Your task to perform on an android device: change your default location settings in chrome Image 0: 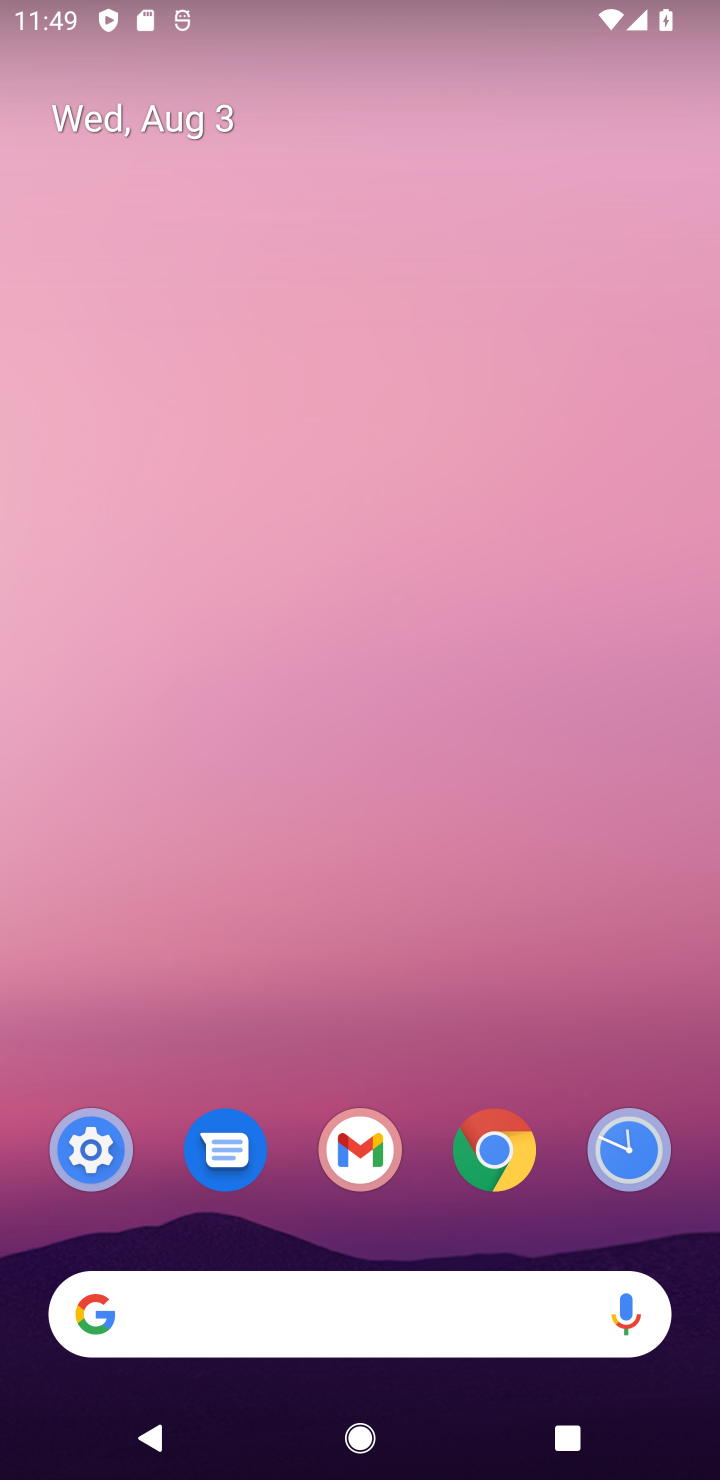
Step 0: drag from (411, 1053) to (411, 452)
Your task to perform on an android device: change your default location settings in chrome Image 1: 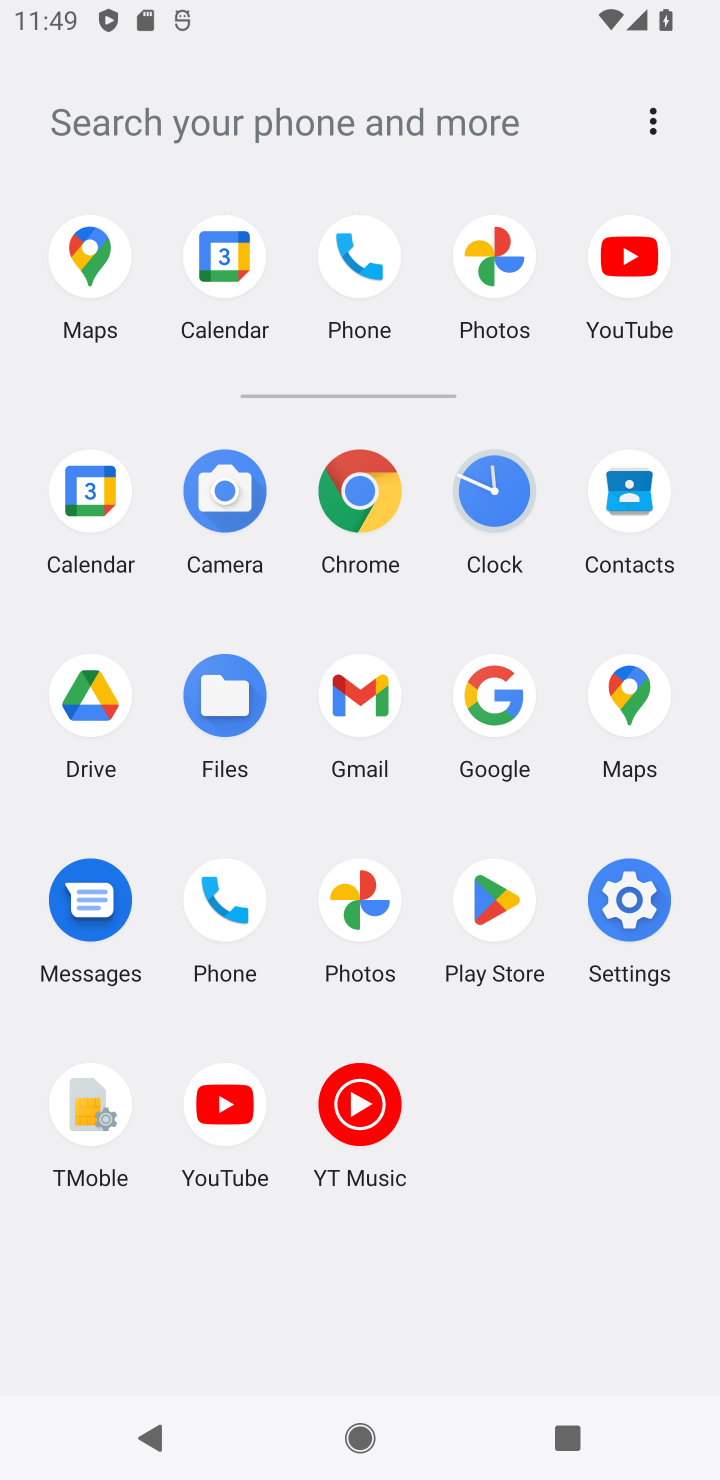
Step 1: click (378, 509)
Your task to perform on an android device: change your default location settings in chrome Image 2: 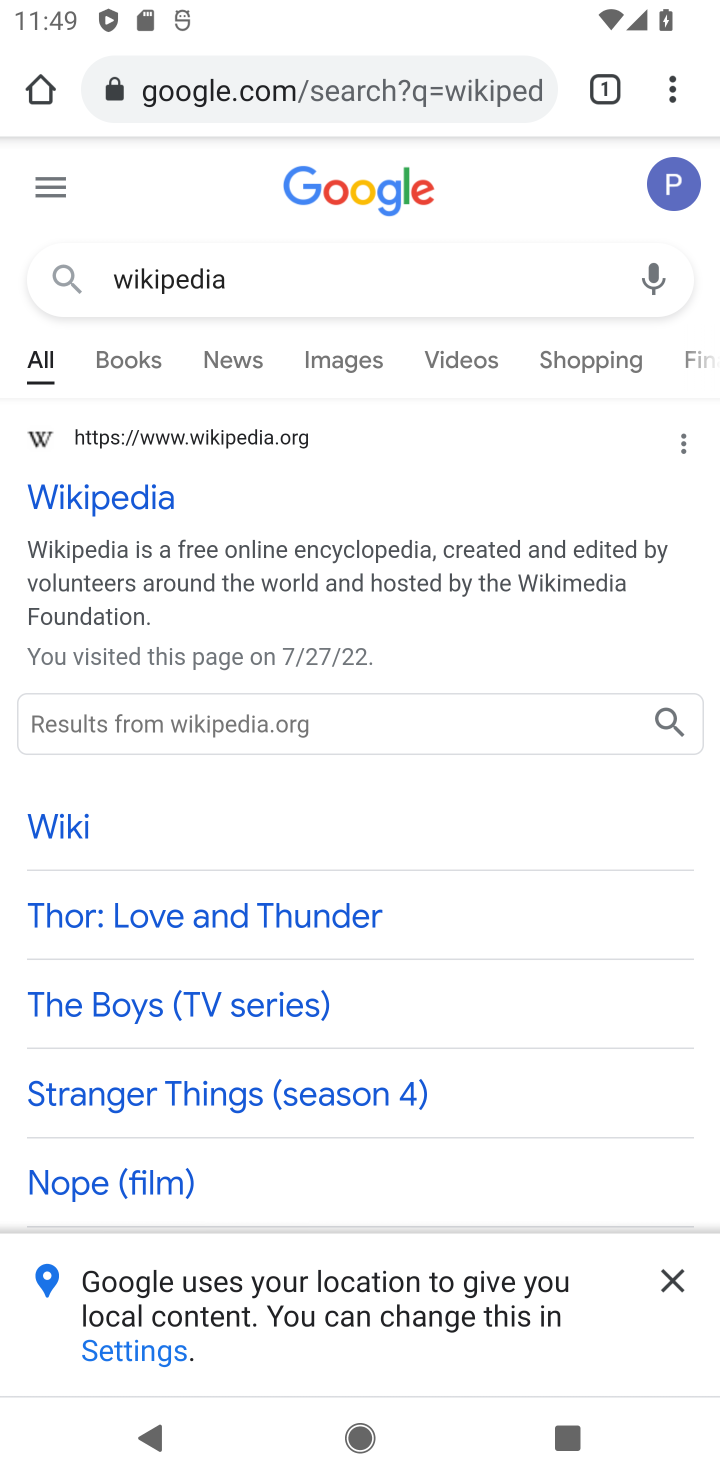
Step 2: click (676, 92)
Your task to perform on an android device: change your default location settings in chrome Image 3: 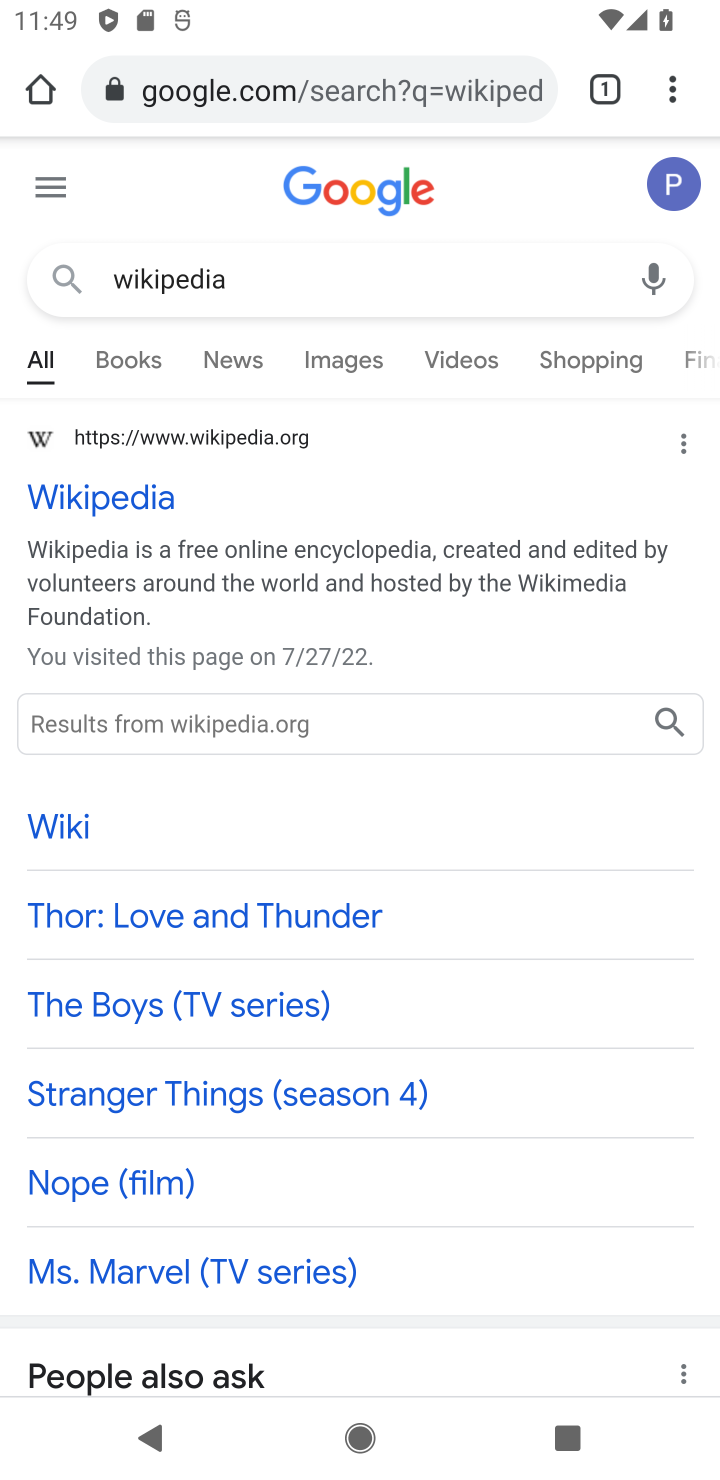
Step 3: click (669, 99)
Your task to perform on an android device: change your default location settings in chrome Image 4: 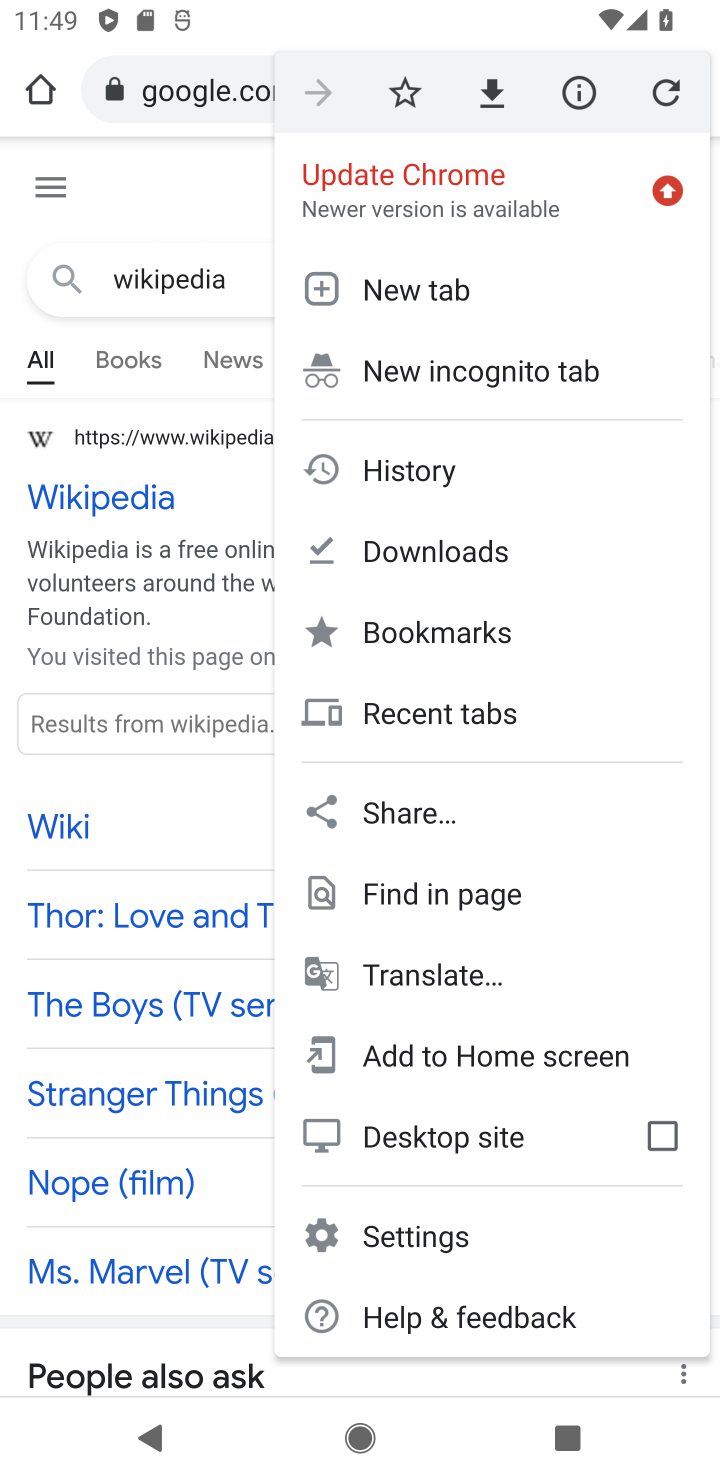
Step 4: click (463, 1219)
Your task to perform on an android device: change your default location settings in chrome Image 5: 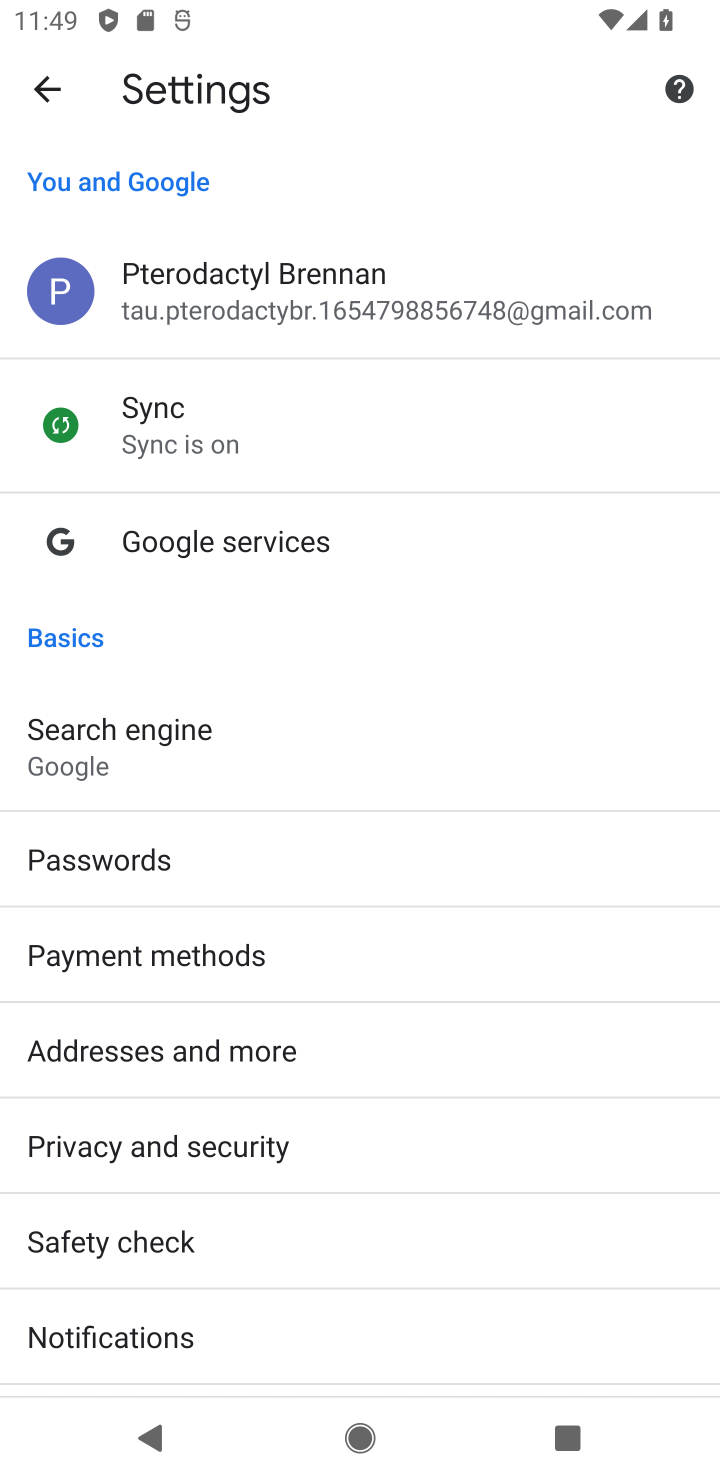
Step 5: drag from (491, 1117) to (492, 911)
Your task to perform on an android device: change your default location settings in chrome Image 6: 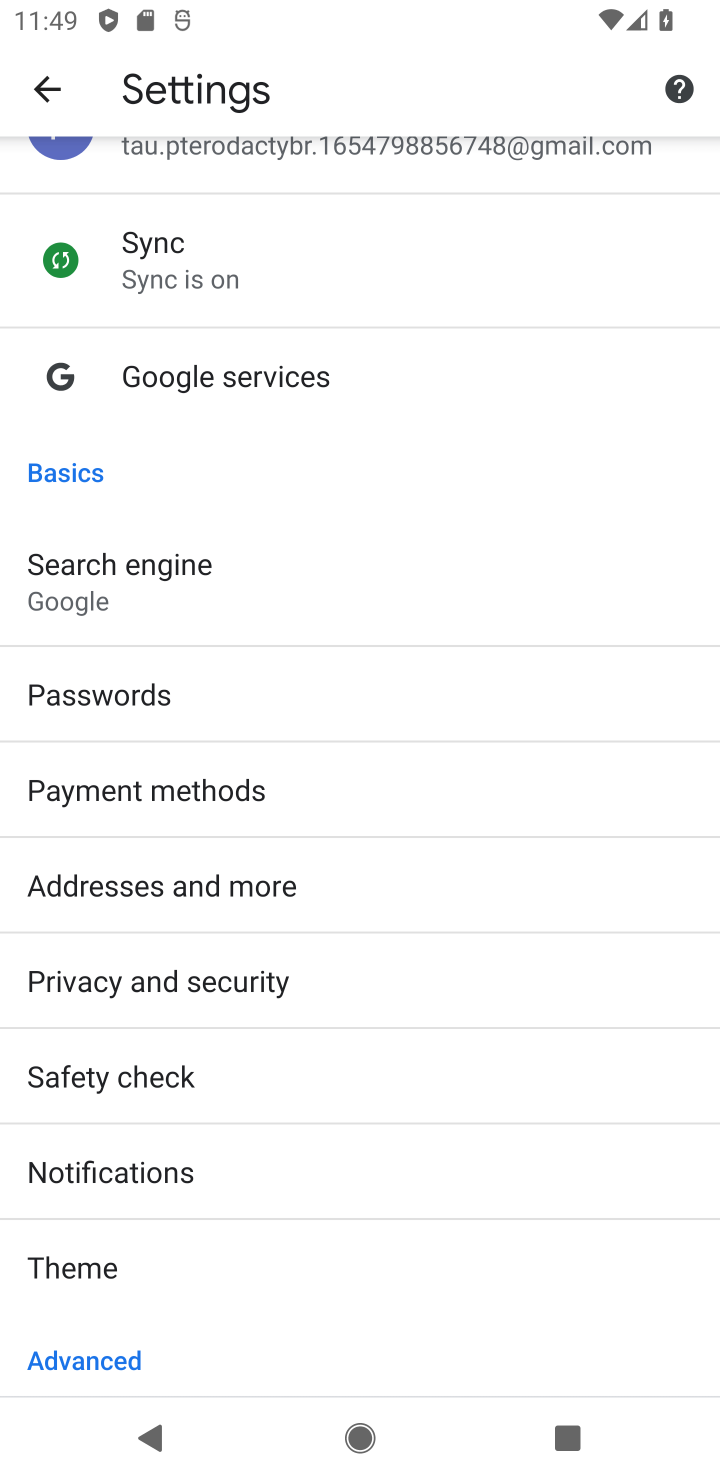
Step 6: drag from (503, 1222) to (515, 883)
Your task to perform on an android device: change your default location settings in chrome Image 7: 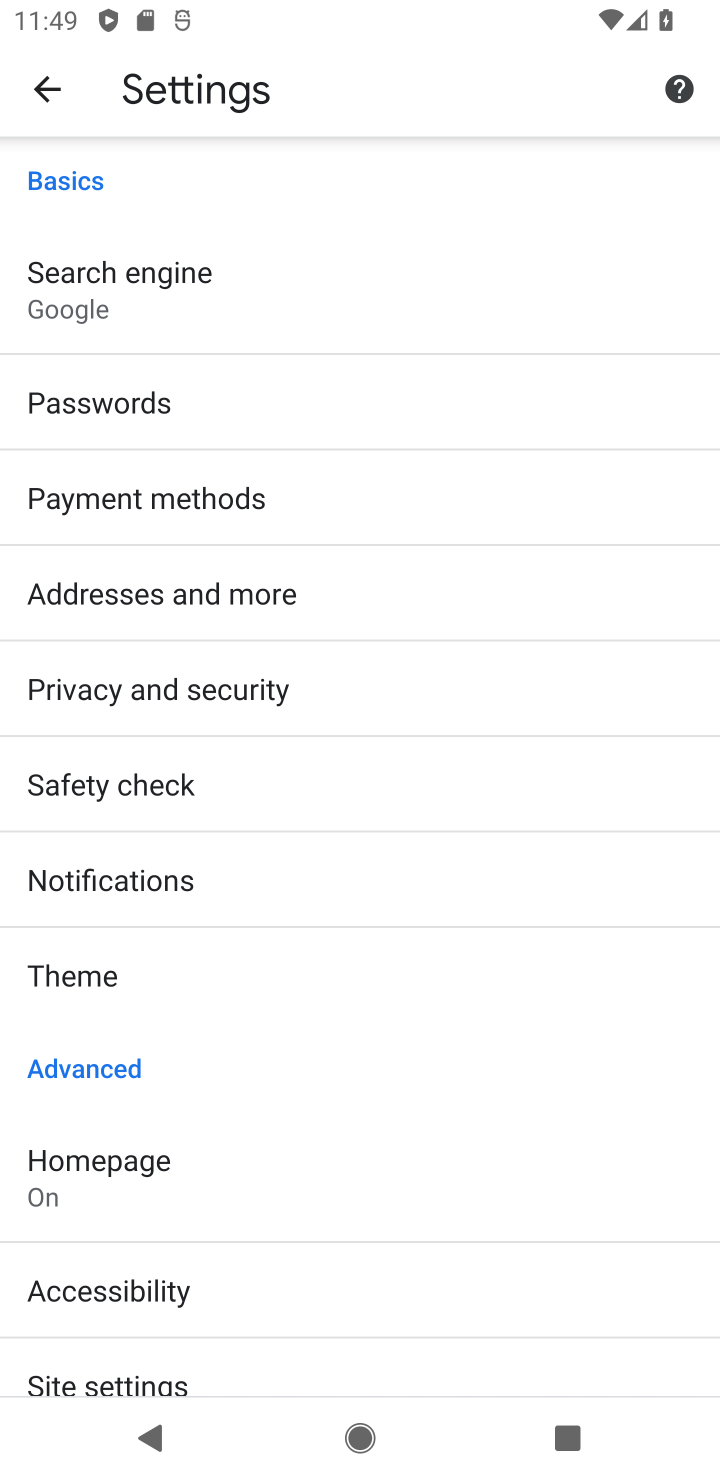
Step 7: drag from (527, 1100) to (518, 871)
Your task to perform on an android device: change your default location settings in chrome Image 8: 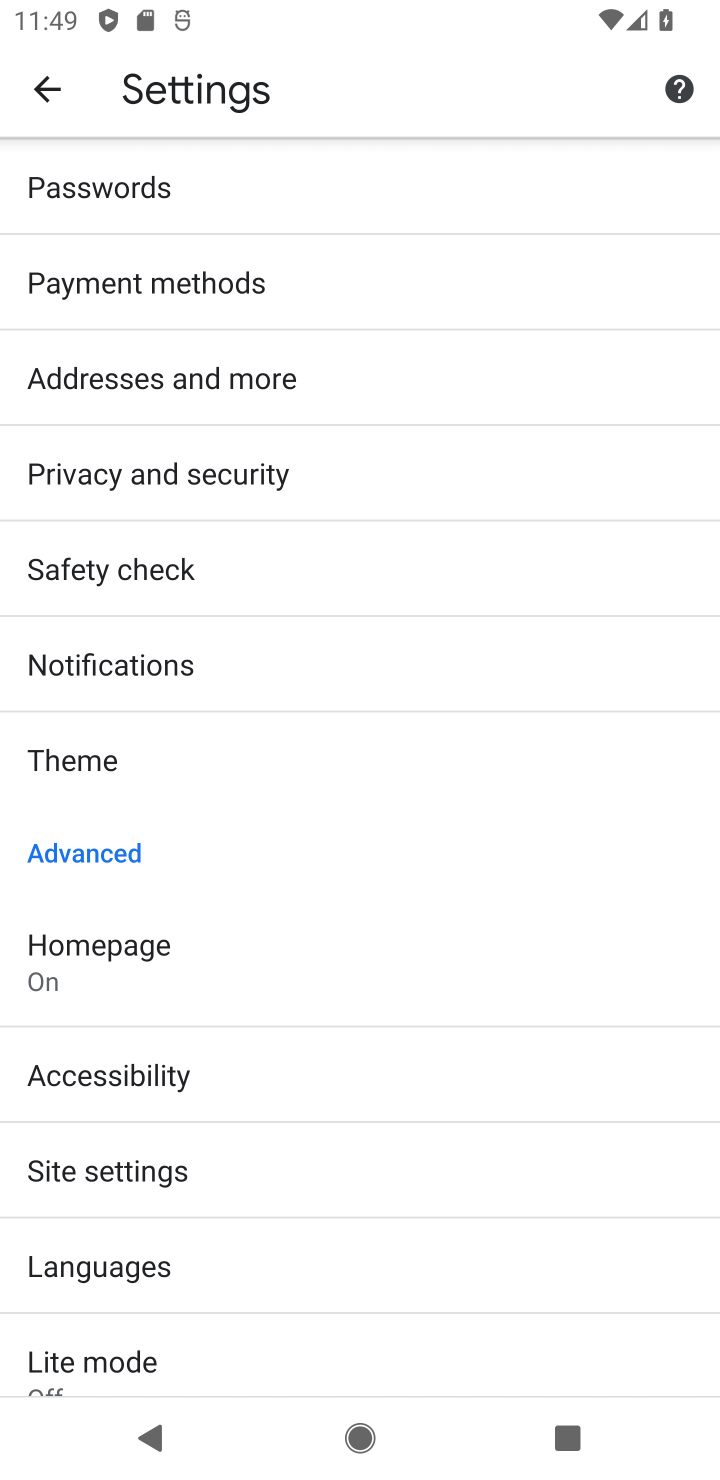
Step 8: click (506, 1170)
Your task to perform on an android device: change your default location settings in chrome Image 9: 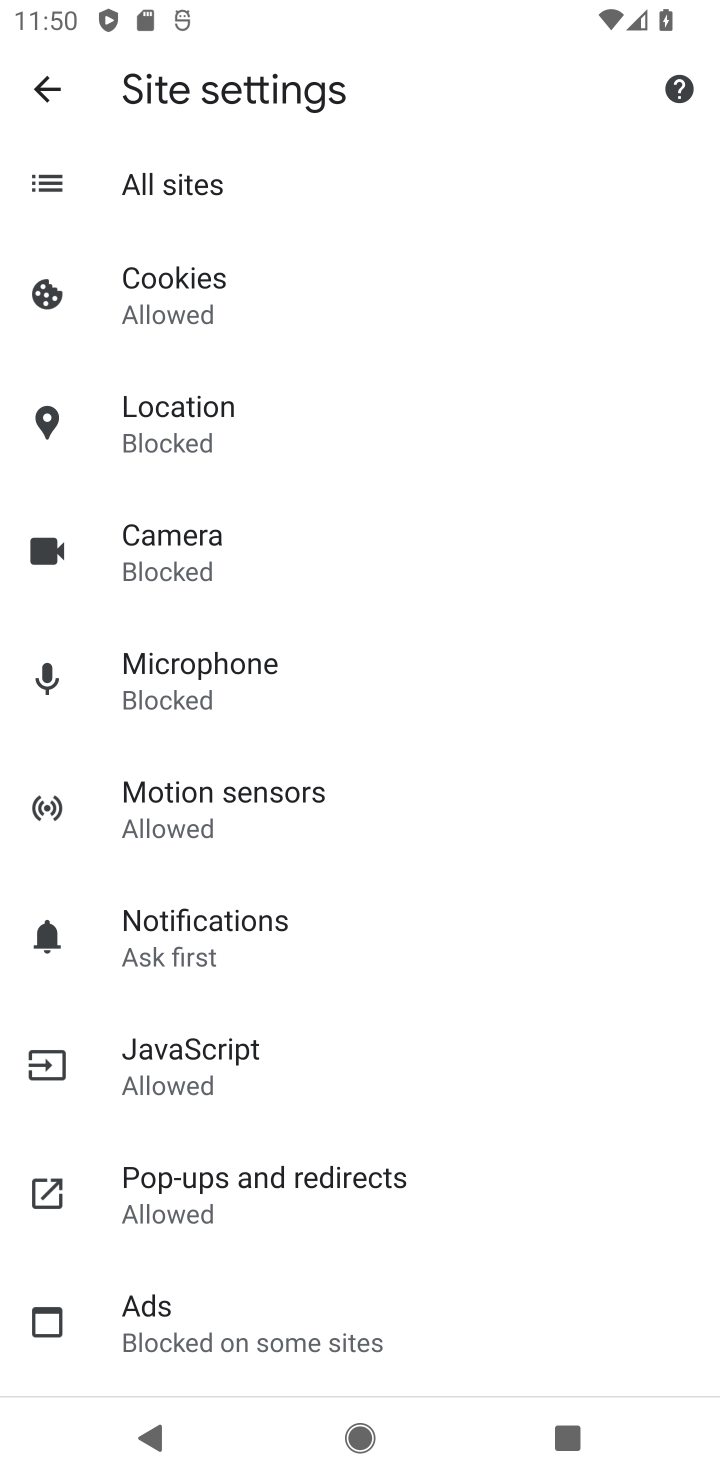
Step 9: click (325, 408)
Your task to perform on an android device: change your default location settings in chrome Image 10: 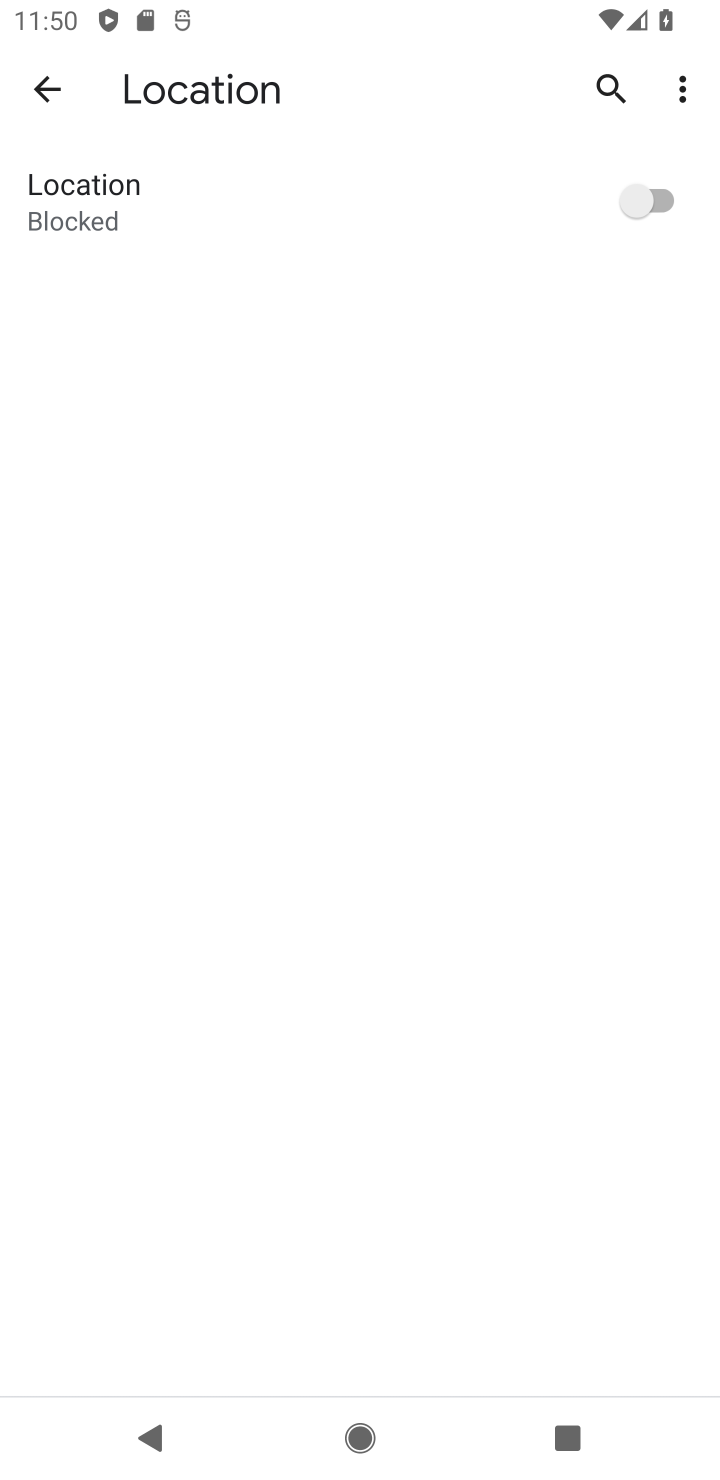
Step 10: click (642, 191)
Your task to perform on an android device: change your default location settings in chrome Image 11: 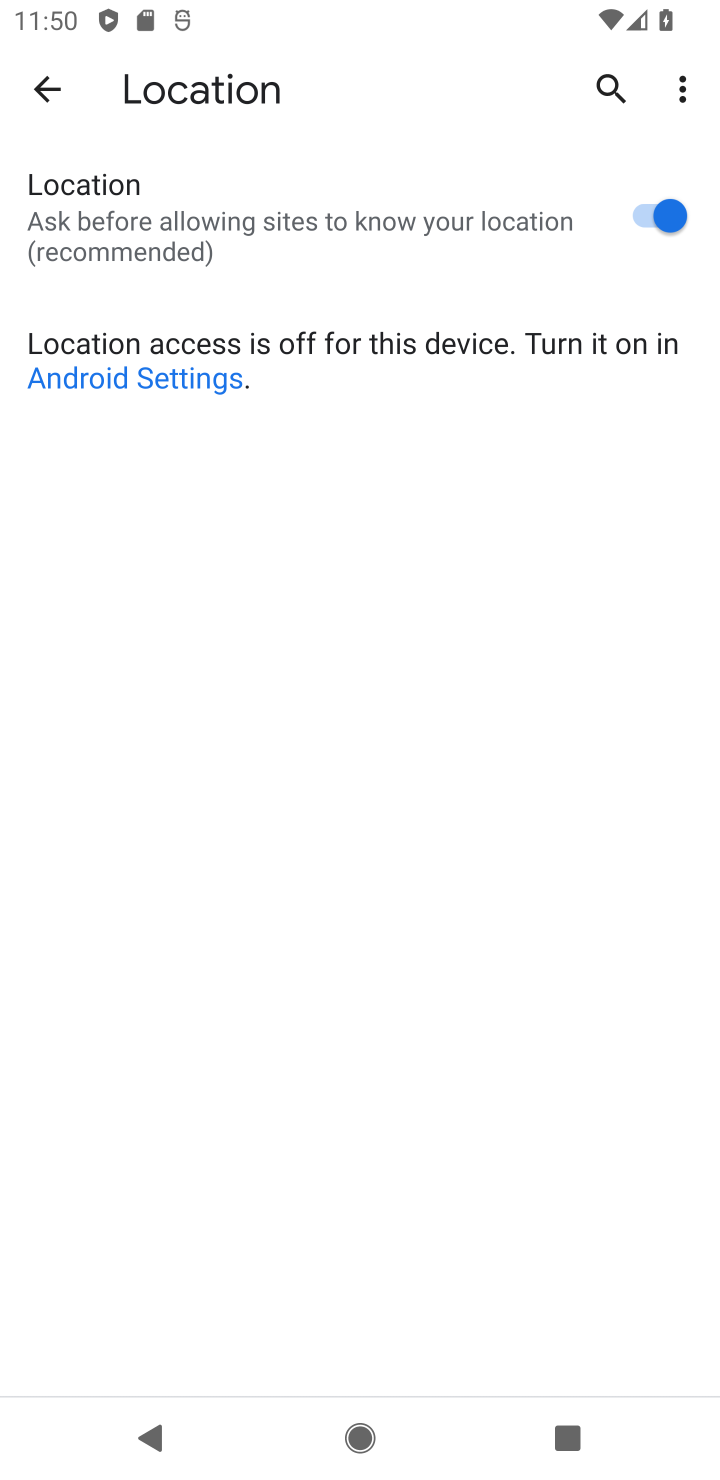
Step 11: task complete